Your task to perform on an android device: Open Google Chrome and open the bookmarks view Image 0: 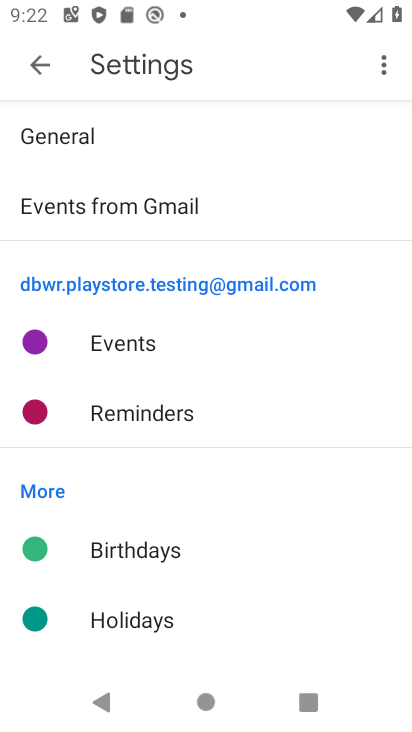
Step 0: press home button
Your task to perform on an android device: Open Google Chrome and open the bookmarks view Image 1: 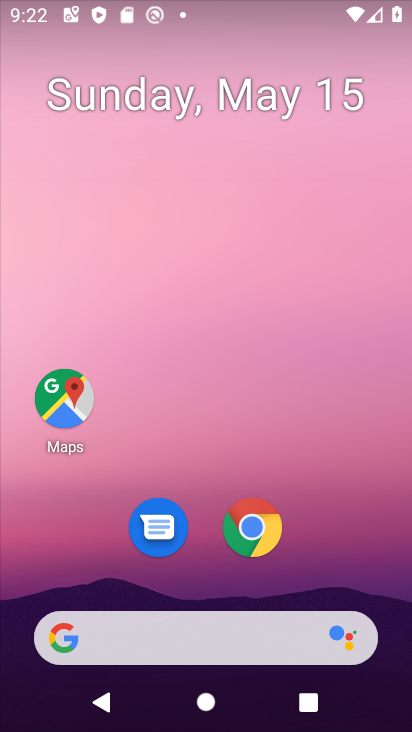
Step 1: click (273, 541)
Your task to perform on an android device: Open Google Chrome and open the bookmarks view Image 2: 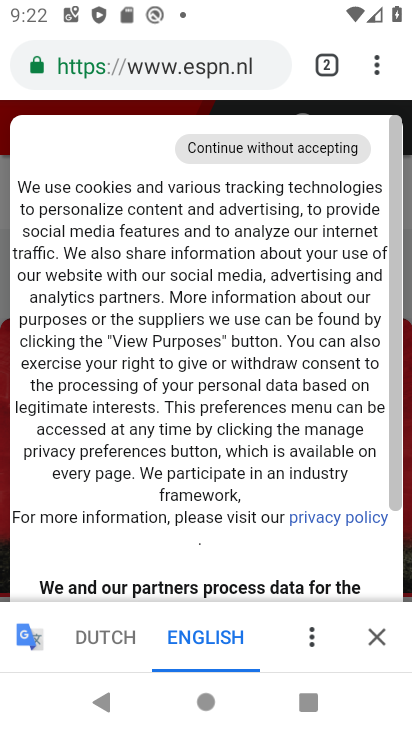
Step 2: click (383, 66)
Your task to perform on an android device: Open Google Chrome and open the bookmarks view Image 3: 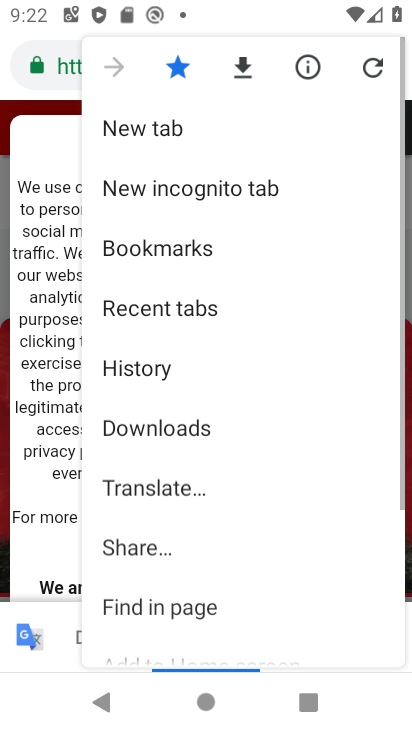
Step 3: click (261, 254)
Your task to perform on an android device: Open Google Chrome and open the bookmarks view Image 4: 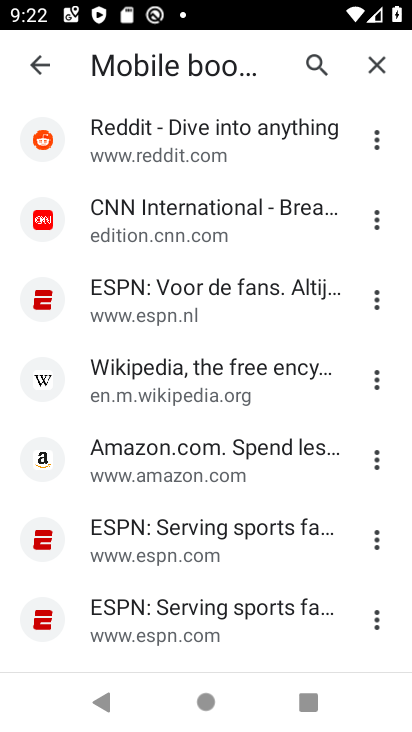
Step 4: task complete